Your task to perform on an android device: open a bookmark in the chrome app Image 0: 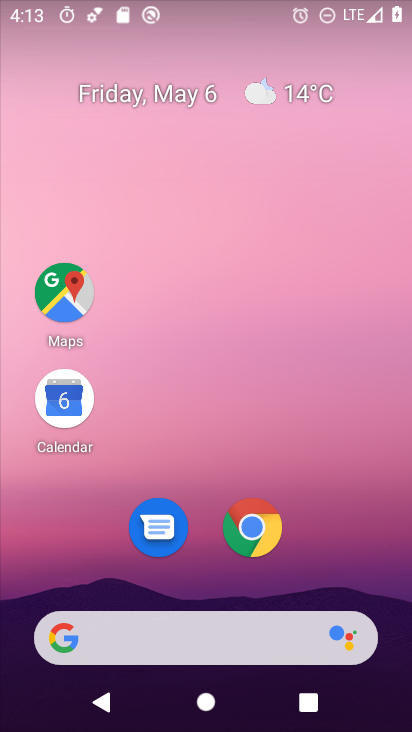
Step 0: click (253, 524)
Your task to perform on an android device: open a bookmark in the chrome app Image 1: 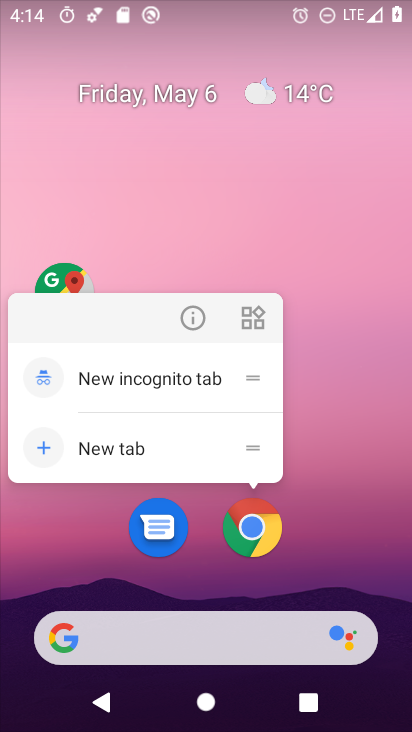
Step 1: click (258, 530)
Your task to perform on an android device: open a bookmark in the chrome app Image 2: 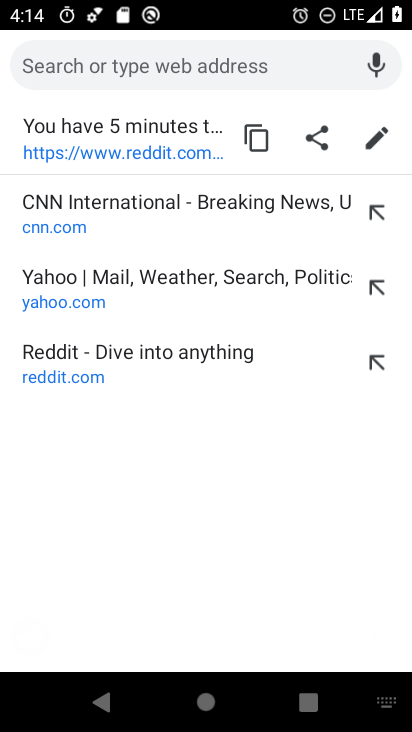
Step 2: press back button
Your task to perform on an android device: open a bookmark in the chrome app Image 3: 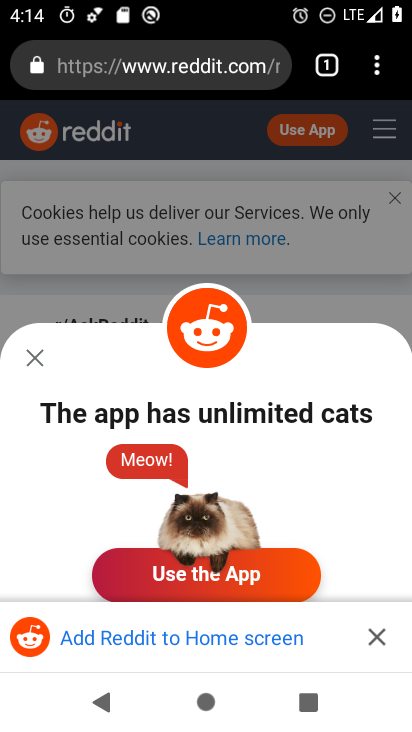
Step 3: click (378, 65)
Your task to perform on an android device: open a bookmark in the chrome app Image 4: 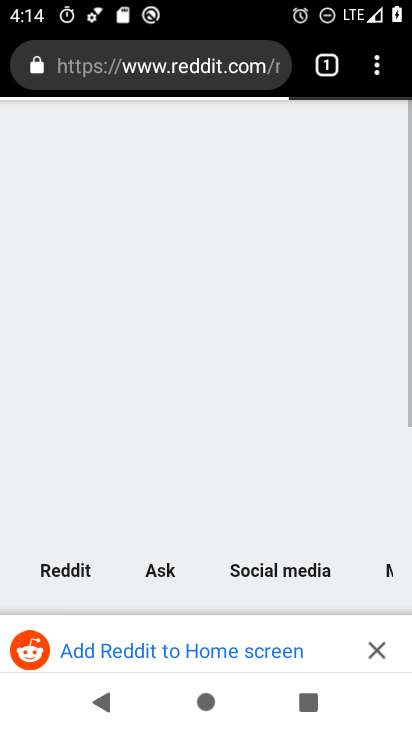
Step 4: task complete